Your task to perform on an android device: What's the weather today? Image 0: 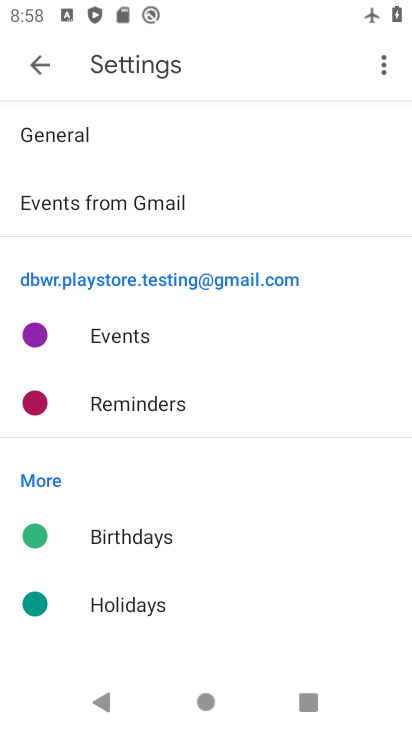
Step 0: press home button
Your task to perform on an android device: What's the weather today? Image 1: 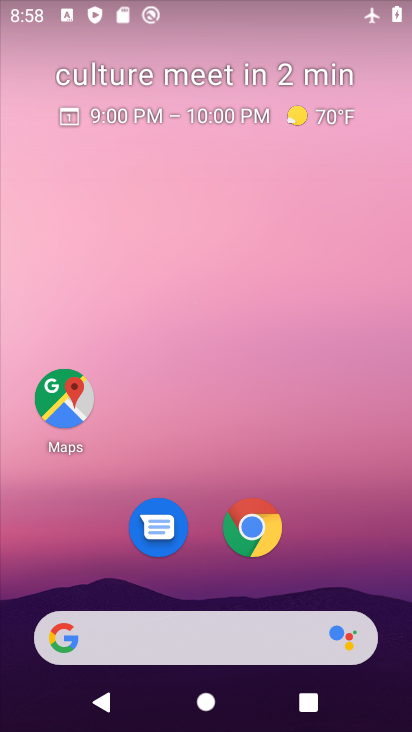
Step 1: drag from (236, 518) to (281, 212)
Your task to perform on an android device: What's the weather today? Image 2: 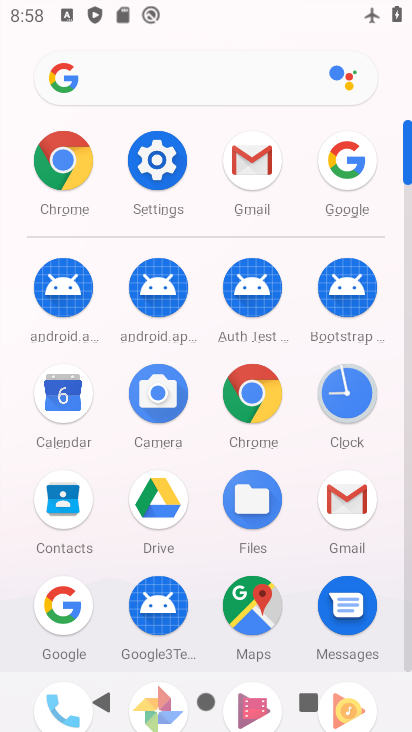
Step 2: click (60, 601)
Your task to perform on an android device: What's the weather today? Image 3: 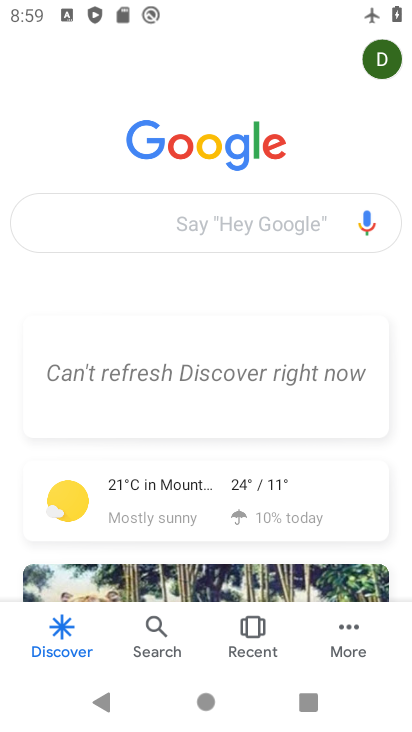
Step 3: click (211, 238)
Your task to perform on an android device: What's the weather today? Image 4: 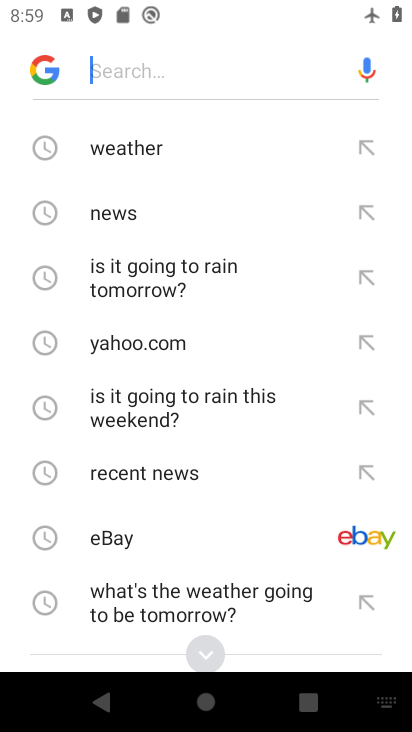
Step 4: click (199, 126)
Your task to perform on an android device: What's the weather today? Image 5: 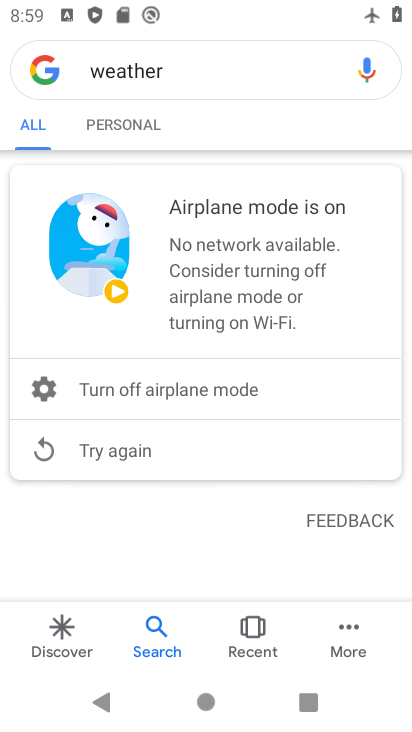
Step 5: task complete